Your task to perform on an android device: Find coffee shops on Maps Image 0: 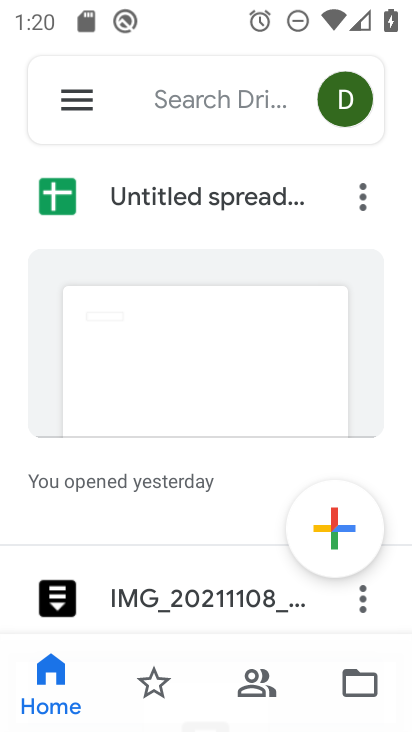
Step 0: press home button
Your task to perform on an android device: Find coffee shops on Maps Image 1: 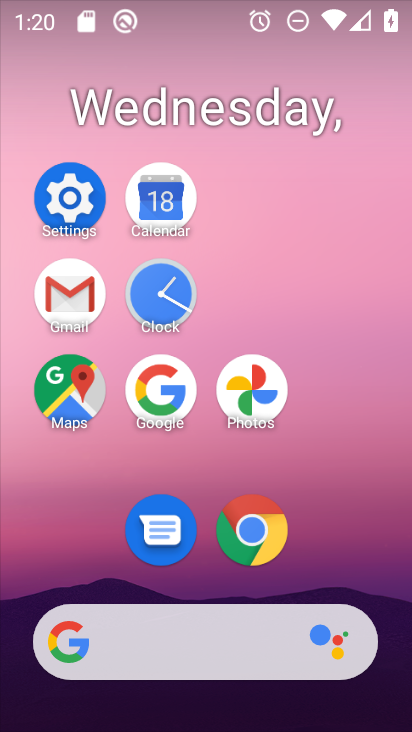
Step 1: click (72, 368)
Your task to perform on an android device: Find coffee shops on Maps Image 2: 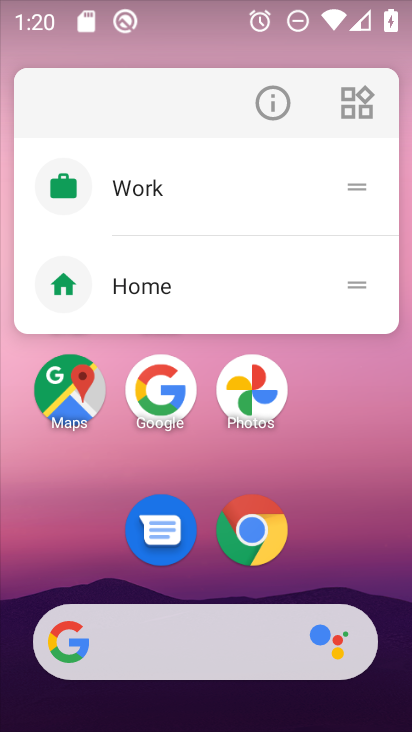
Step 2: click (72, 368)
Your task to perform on an android device: Find coffee shops on Maps Image 3: 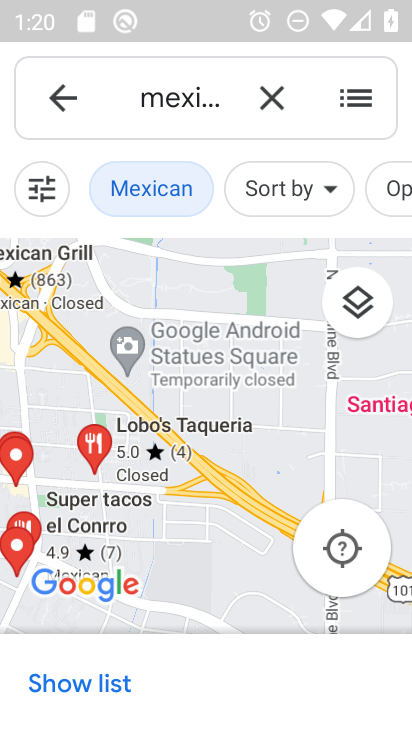
Step 3: click (259, 93)
Your task to perform on an android device: Find coffee shops on Maps Image 4: 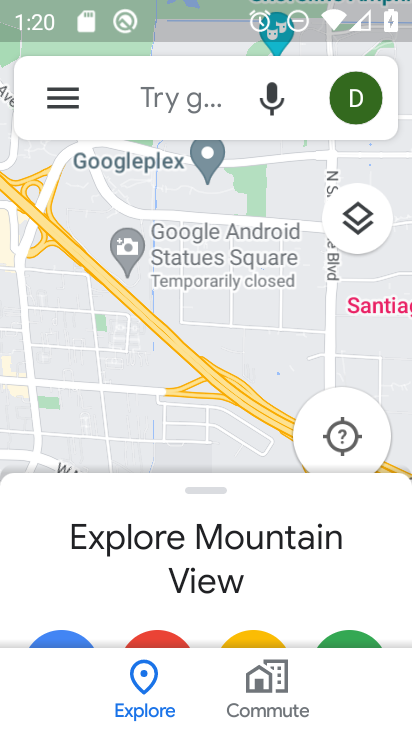
Step 4: click (181, 115)
Your task to perform on an android device: Find coffee shops on Maps Image 5: 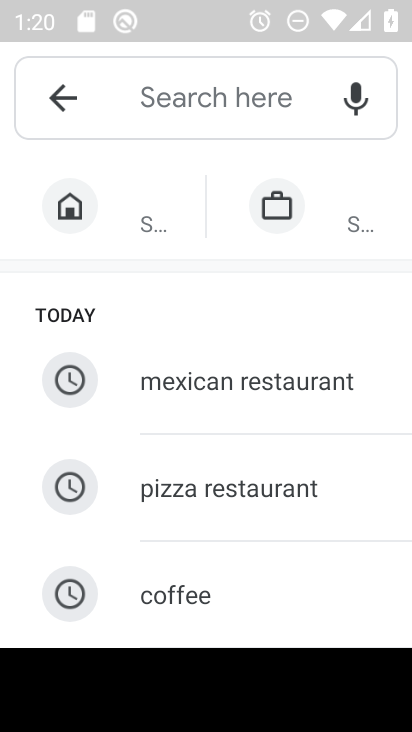
Step 5: drag from (286, 533) to (323, 138)
Your task to perform on an android device: Find coffee shops on Maps Image 6: 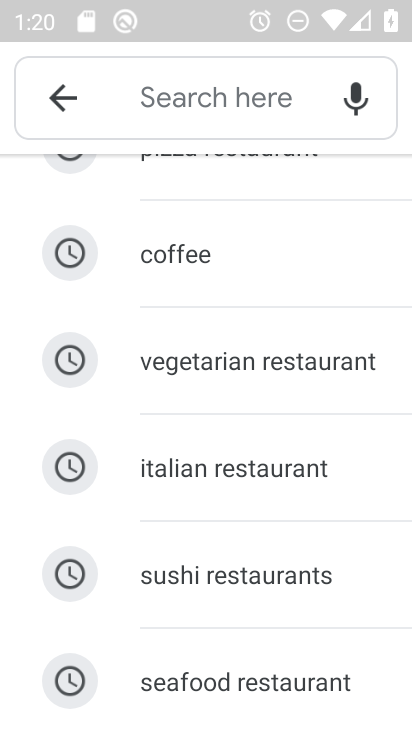
Step 6: drag from (279, 559) to (304, 144)
Your task to perform on an android device: Find coffee shops on Maps Image 7: 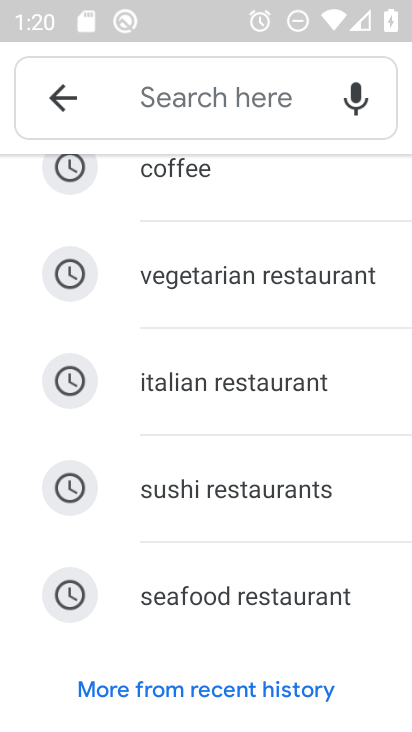
Step 7: drag from (240, 463) to (310, 66)
Your task to perform on an android device: Find coffee shops on Maps Image 8: 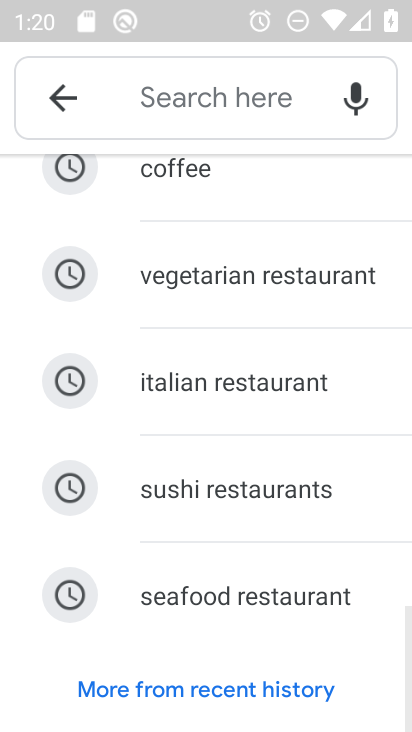
Step 8: click (217, 91)
Your task to perform on an android device: Find coffee shops on Maps Image 9: 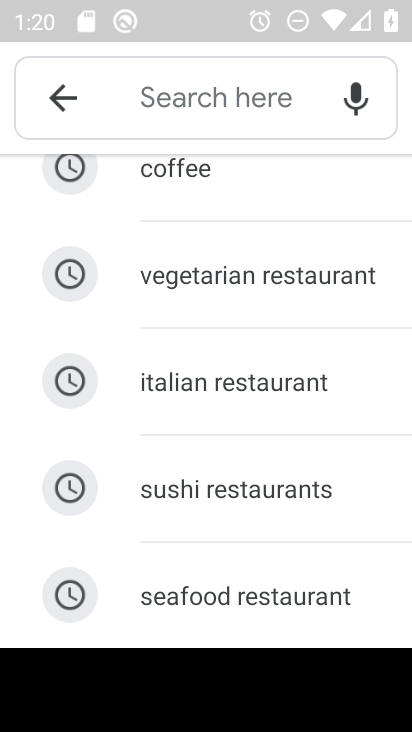
Step 9: type "coffee shops"
Your task to perform on an android device: Find coffee shops on Maps Image 10: 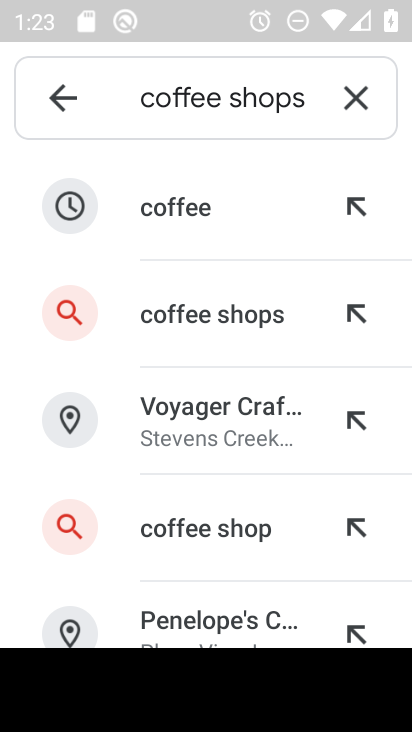
Step 10: task complete